Your task to perform on an android device: Toggle the flashlight Image 0: 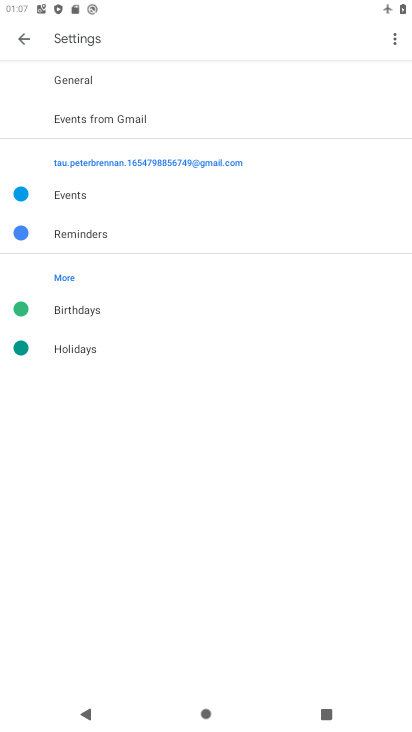
Step 0: press home button
Your task to perform on an android device: Toggle the flashlight Image 1: 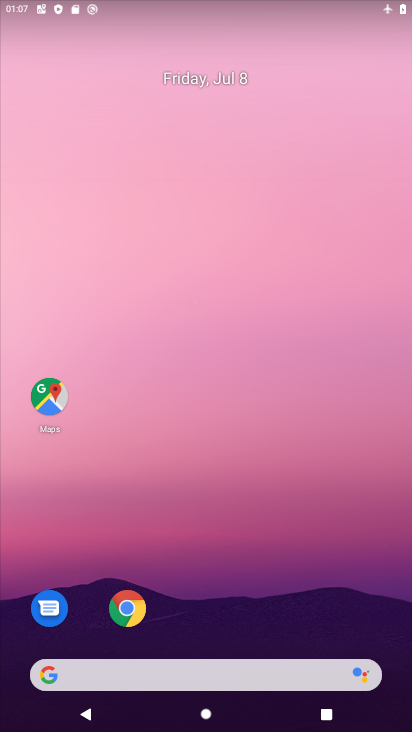
Step 1: task complete